Your task to perform on an android device: Go to location settings Image 0: 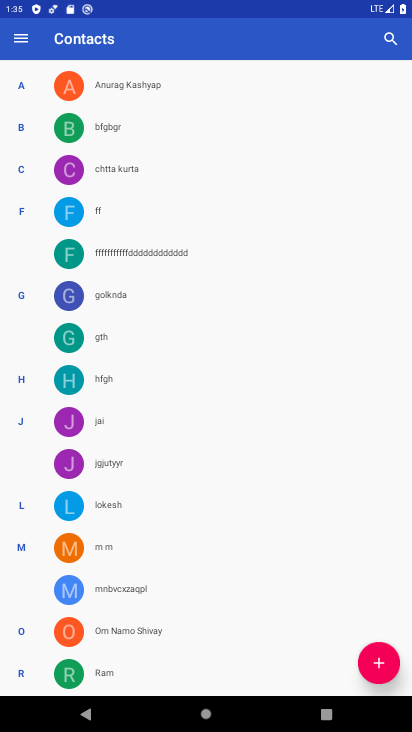
Step 0: press home button
Your task to perform on an android device: Go to location settings Image 1: 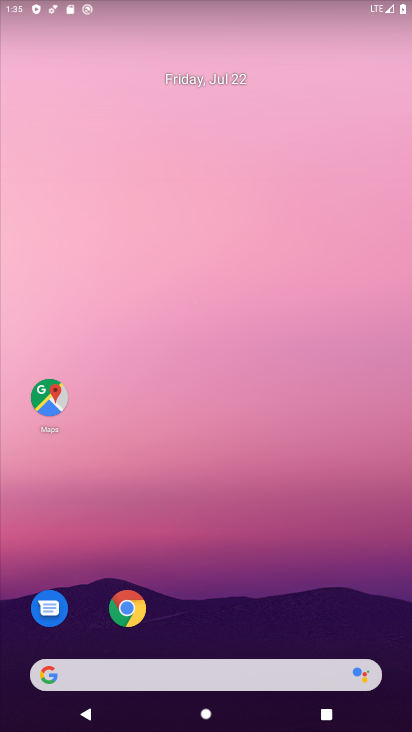
Step 1: drag from (398, 718) to (344, 142)
Your task to perform on an android device: Go to location settings Image 2: 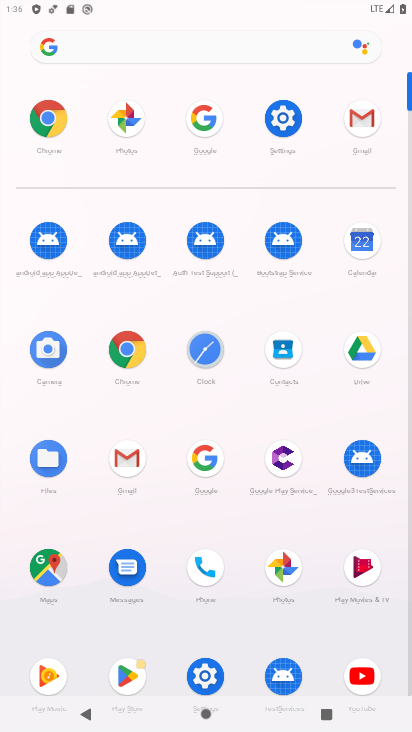
Step 2: click (203, 683)
Your task to perform on an android device: Go to location settings Image 3: 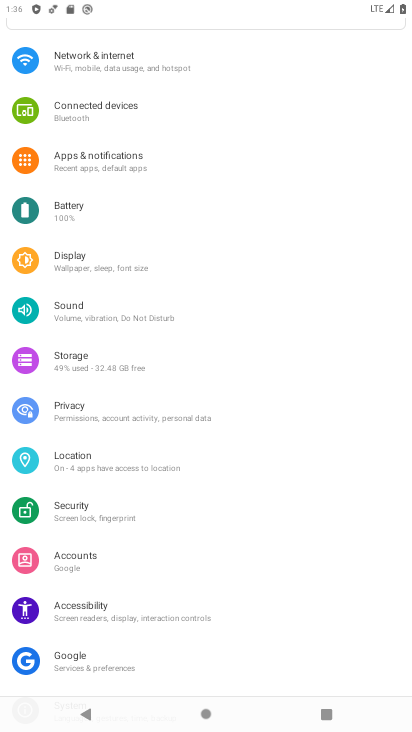
Step 3: click (64, 456)
Your task to perform on an android device: Go to location settings Image 4: 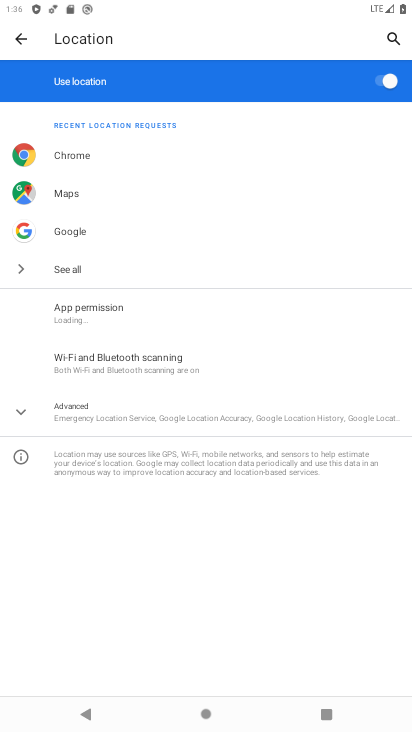
Step 4: click (15, 409)
Your task to perform on an android device: Go to location settings Image 5: 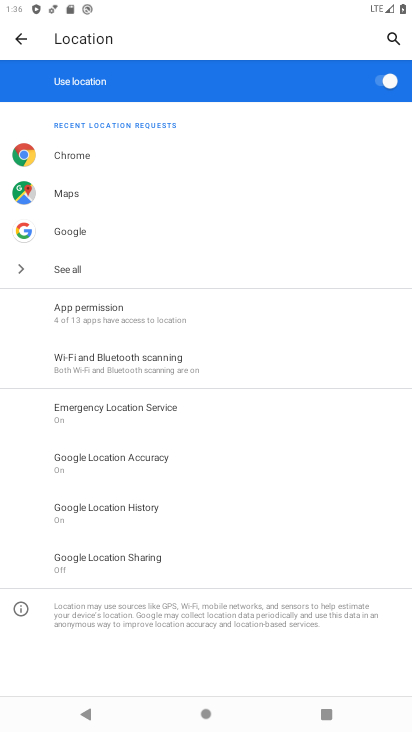
Step 5: task complete